Your task to perform on an android device: clear history in the chrome app Image 0: 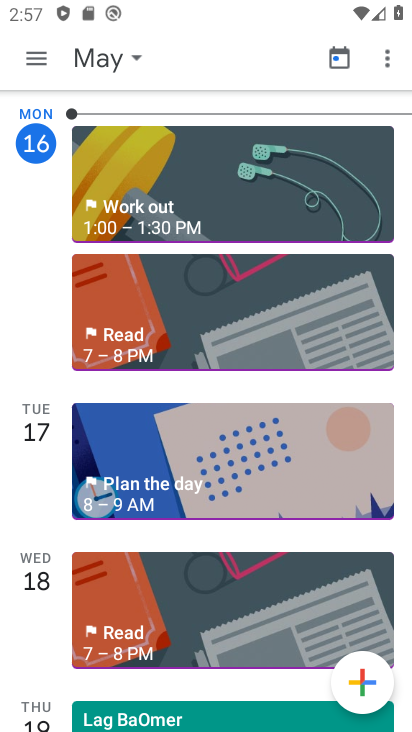
Step 0: press home button
Your task to perform on an android device: clear history in the chrome app Image 1: 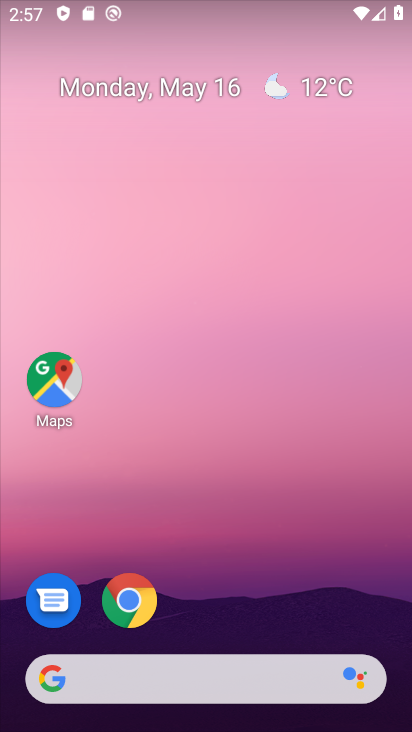
Step 1: click (115, 601)
Your task to perform on an android device: clear history in the chrome app Image 2: 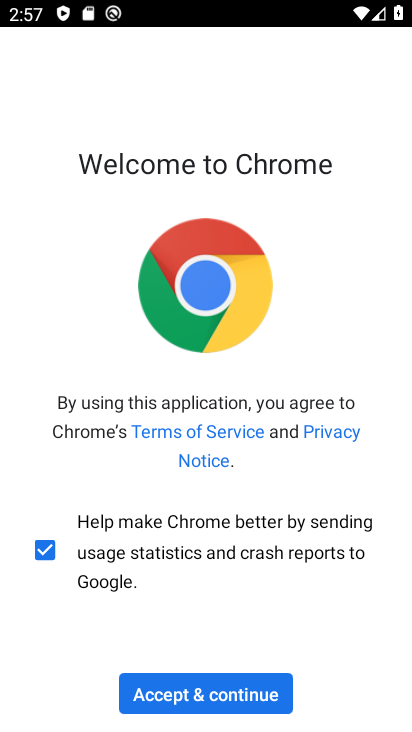
Step 2: click (221, 688)
Your task to perform on an android device: clear history in the chrome app Image 3: 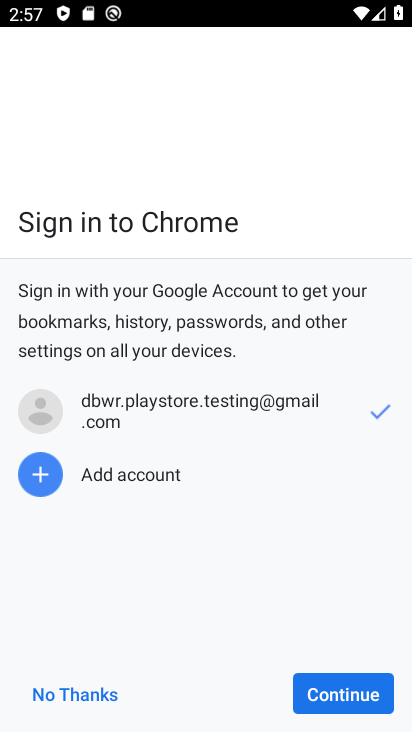
Step 3: click (349, 700)
Your task to perform on an android device: clear history in the chrome app Image 4: 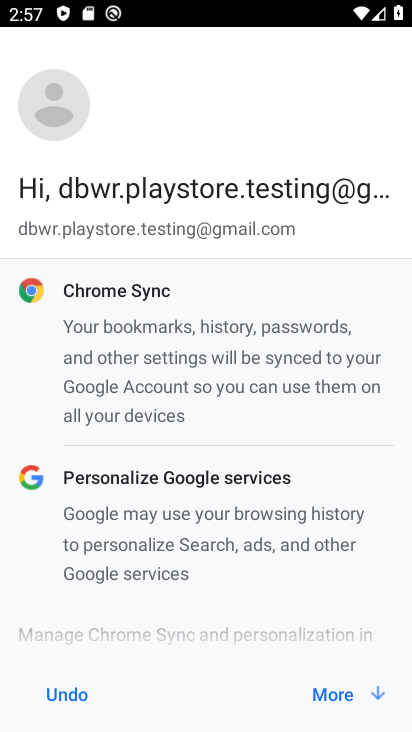
Step 4: click (353, 710)
Your task to perform on an android device: clear history in the chrome app Image 5: 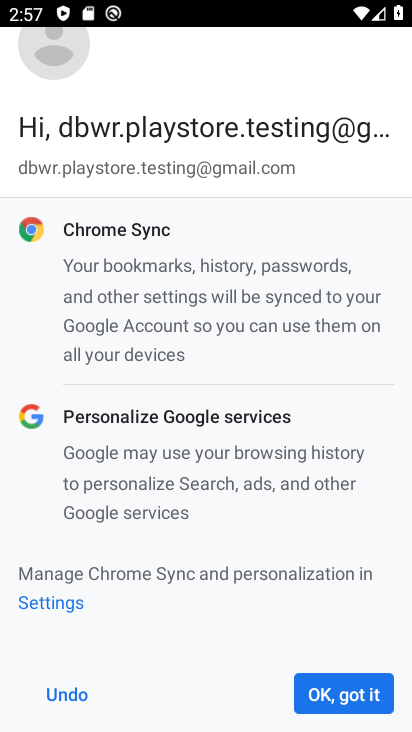
Step 5: click (360, 708)
Your task to perform on an android device: clear history in the chrome app Image 6: 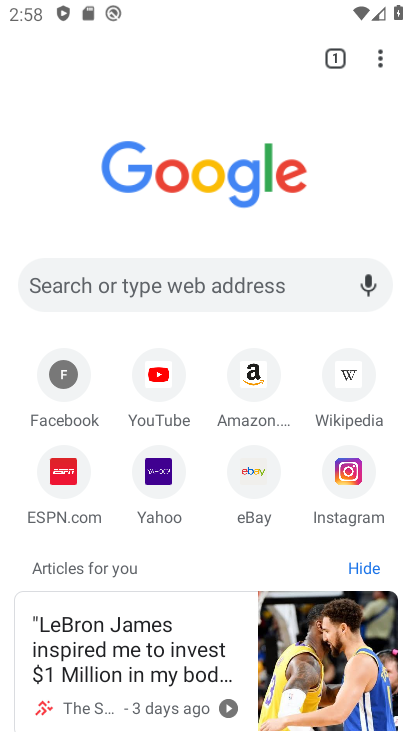
Step 6: click (383, 58)
Your task to perform on an android device: clear history in the chrome app Image 7: 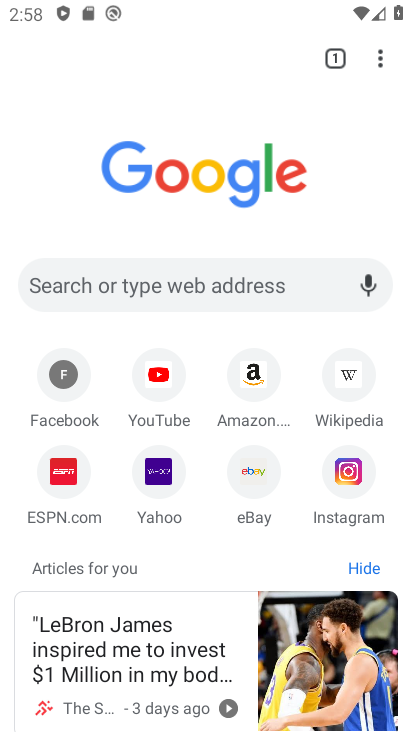
Step 7: click (375, 65)
Your task to perform on an android device: clear history in the chrome app Image 8: 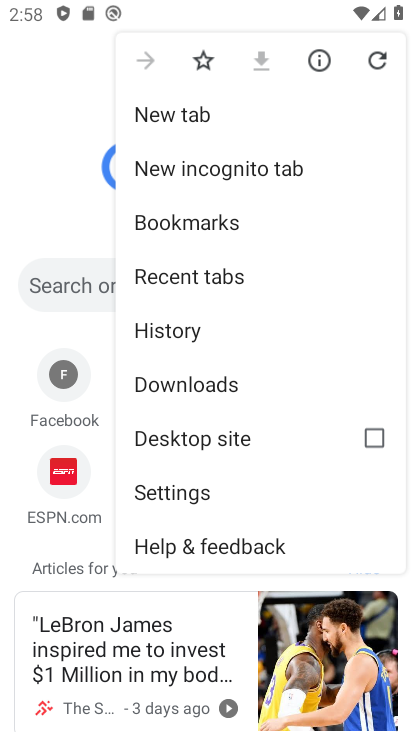
Step 8: click (158, 328)
Your task to perform on an android device: clear history in the chrome app Image 9: 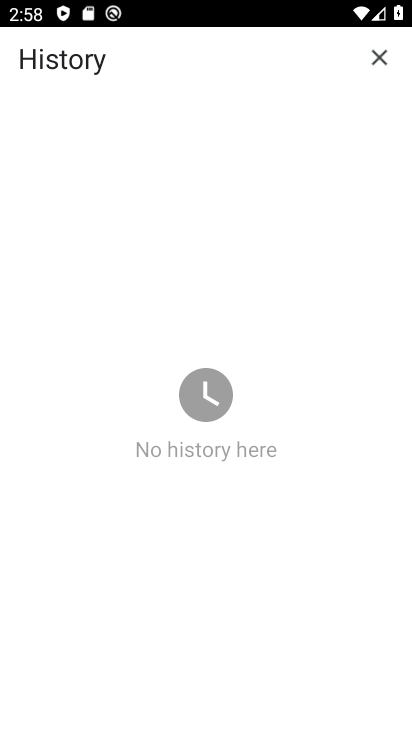
Step 9: task complete